Your task to perform on an android device: search for starred emails in the gmail app Image 0: 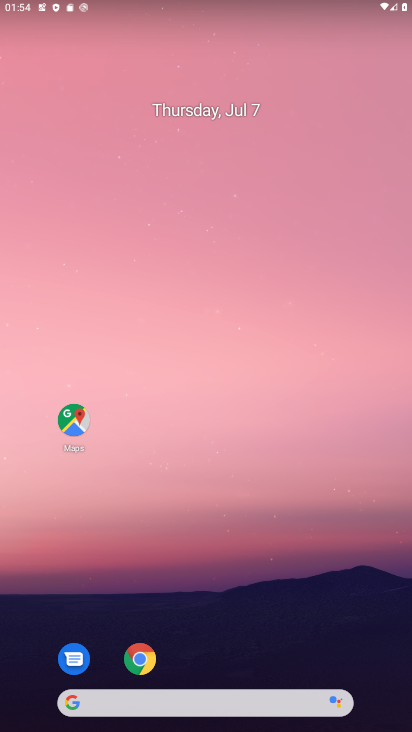
Step 0: drag from (234, 602) to (206, 60)
Your task to perform on an android device: search for starred emails in the gmail app Image 1: 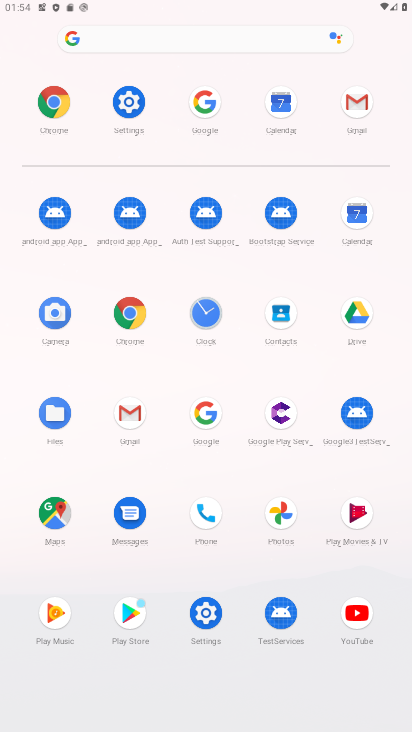
Step 1: click (358, 101)
Your task to perform on an android device: search for starred emails in the gmail app Image 2: 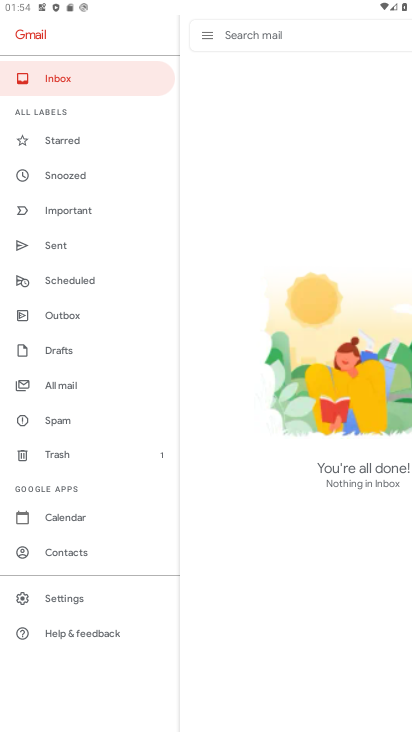
Step 2: click (28, 146)
Your task to perform on an android device: search for starred emails in the gmail app Image 3: 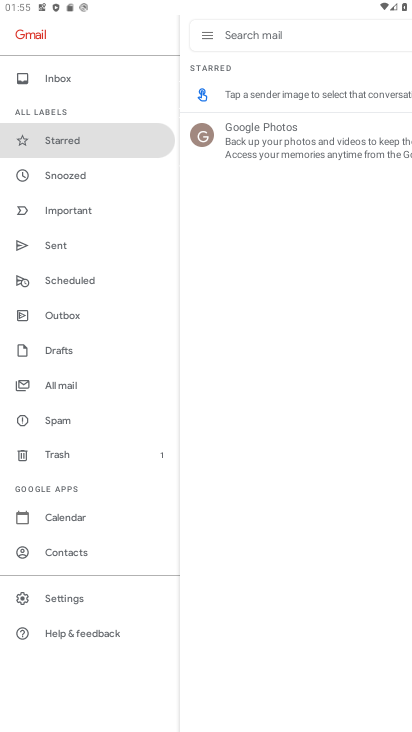
Step 3: task complete